Your task to perform on an android device: Go to accessibility settings Image 0: 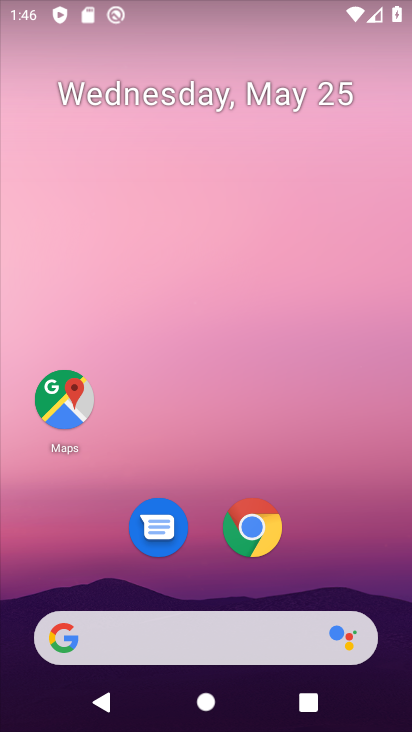
Step 0: drag from (214, 522) to (287, 39)
Your task to perform on an android device: Go to accessibility settings Image 1: 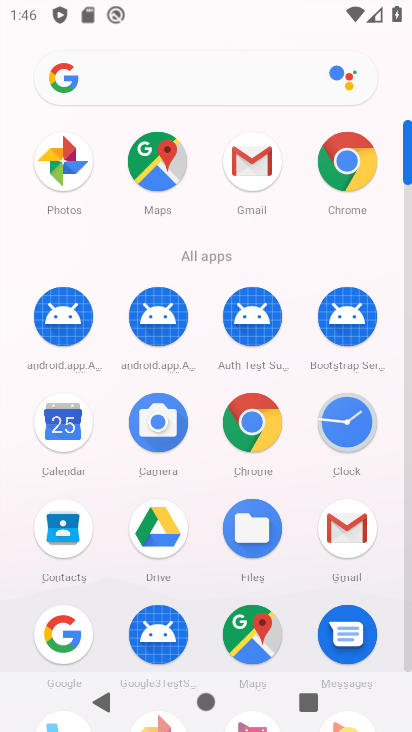
Step 1: drag from (221, 552) to (226, 176)
Your task to perform on an android device: Go to accessibility settings Image 2: 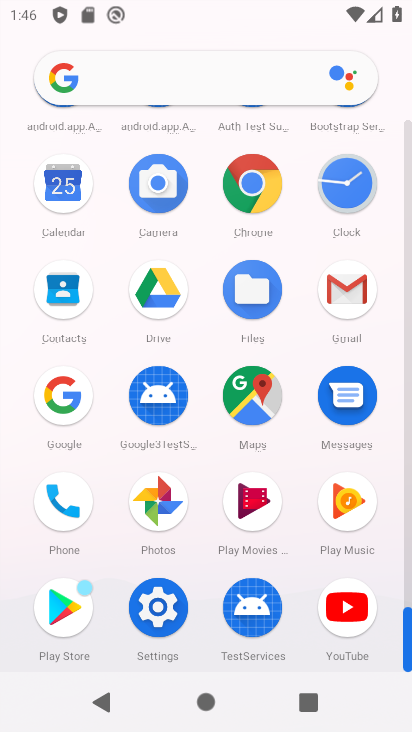
Step 2: click (153, 610)
Your task to perform on an android device: Go to accessibility settings Image 3: 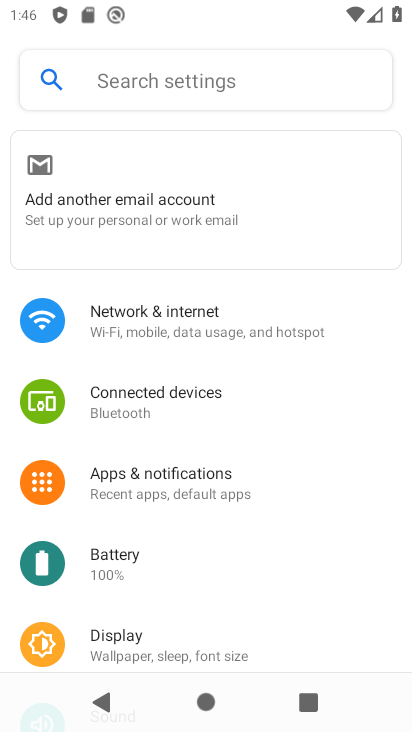
Step 3: drag from (226, 517) to (353, 18)
Your task to perform on an android device: Go to accessibility settings Image 4: 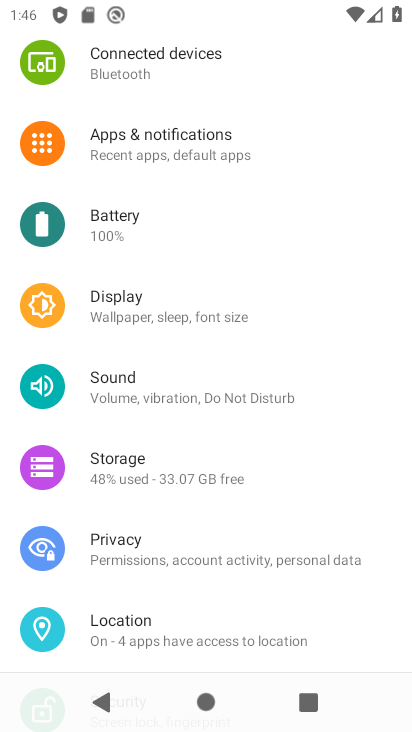
Step 4: drag from (187, 595) to (308, 46)
Your task to perform on an android device: Go to accessibility settings Image 5: 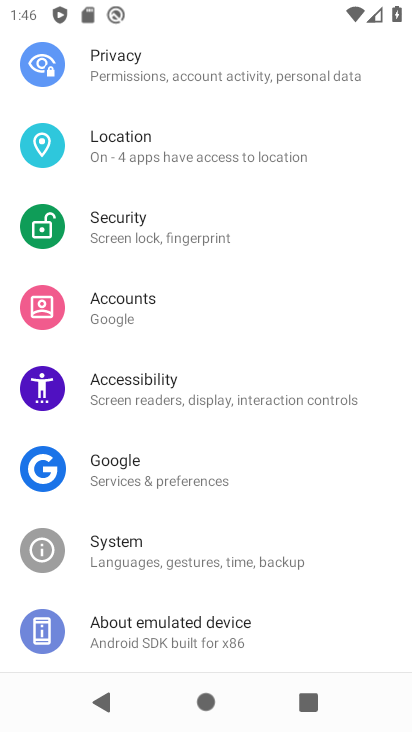
Step 5: click (186, 402)
Your task to perform on an android device: Go to accessibility settings Image 6: 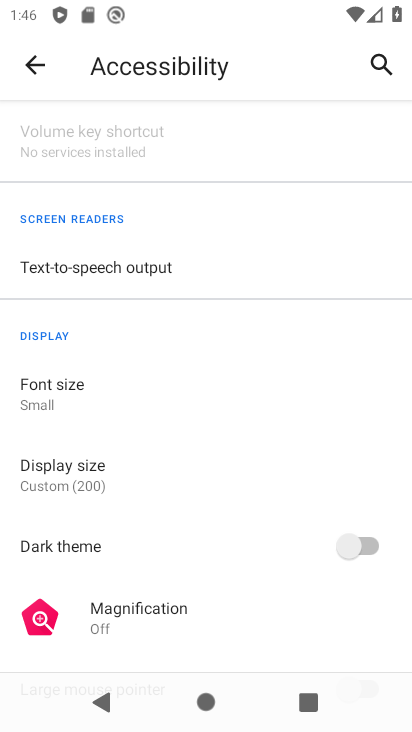
Step 6: task complete